Your task to perform on an android device: delete browsing data in the chrome app Image 0: 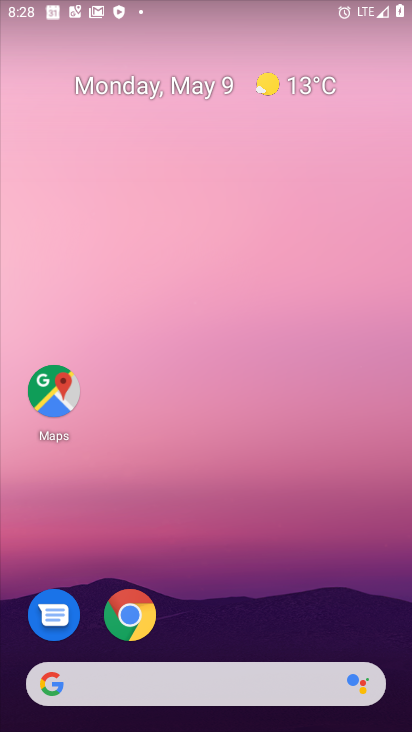
Step 0: click (138, 610)
Your task to perform on an android device: delete browsing data in the chrome app Image 1: 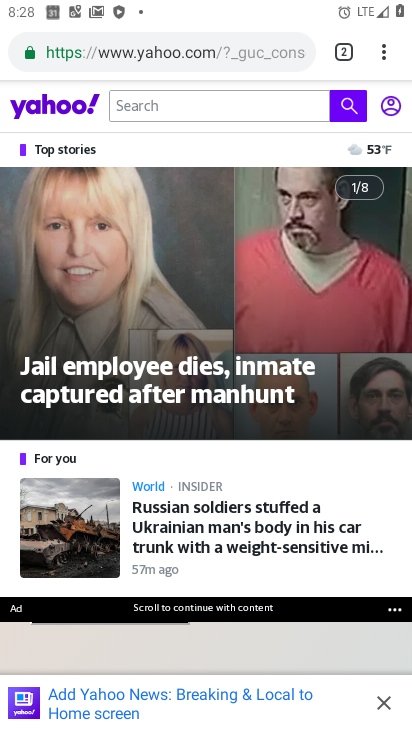
Step 1: click (377, 39)
Your task to perform on an android device: delete browsing data in the chrome app Image 2: 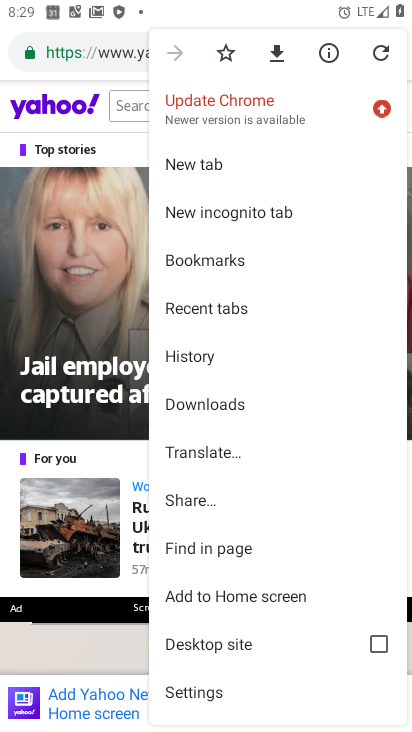
Step 2: click (234, 375)
Your task to perform on an android device: delete browsing data in the chrome app Image 3: 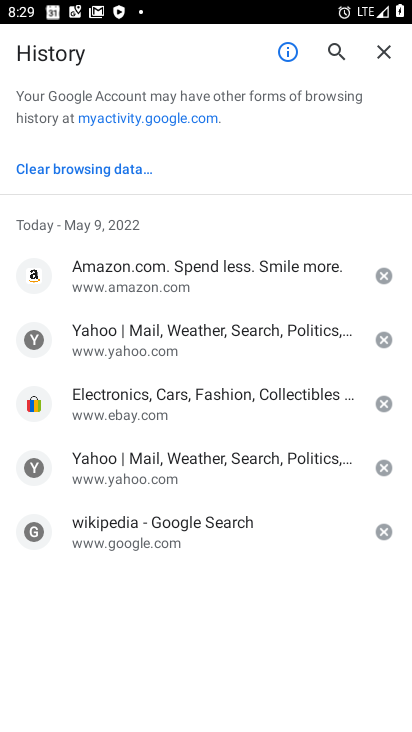
Step 3: click (109, 183)
Your task to perform on an android device: delete browsing data in the chrome app Image 4: 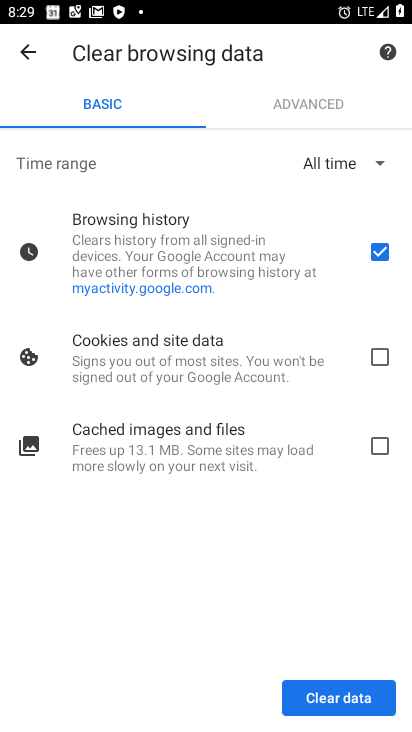
Step 4: click (338, 703)
Your task to perform on an android device: delete browsing data in the chrome app Image 5: 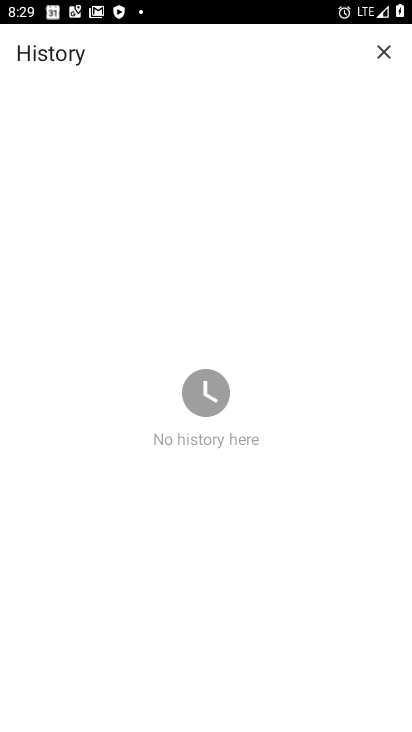
Step 5: task complete